Your task to perform on an android device: Is it going to rain tomorrow? Image 0: 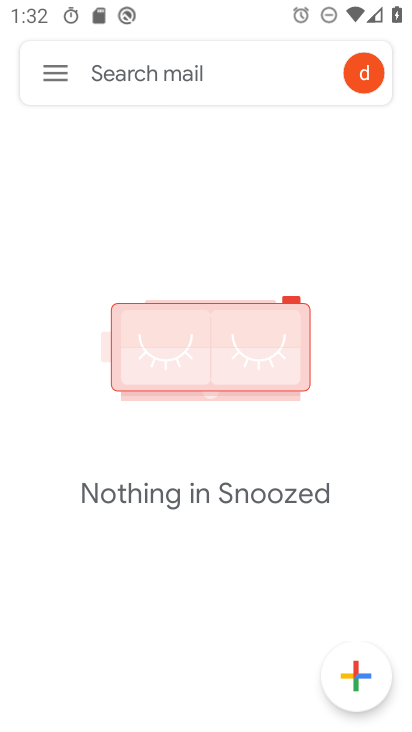
Step 0: press home button
Your task to perform on an android device: Is it going to rain tomorrow? Image 1: 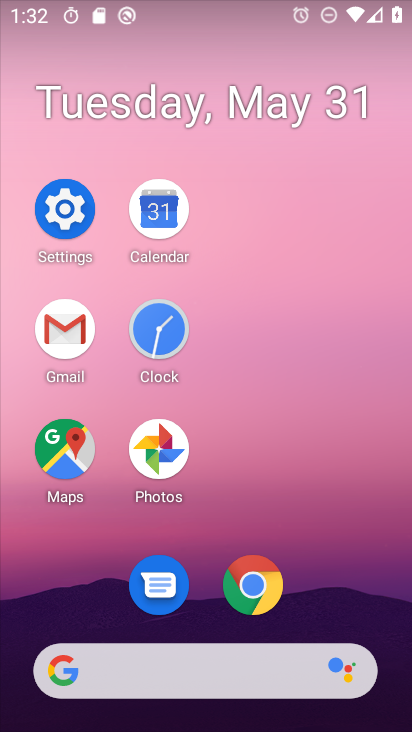
Step 1: drag from (298, 501) to (250, 123)
Your task to perform on an android device: Is it going to rain tomorrow? Image 2: 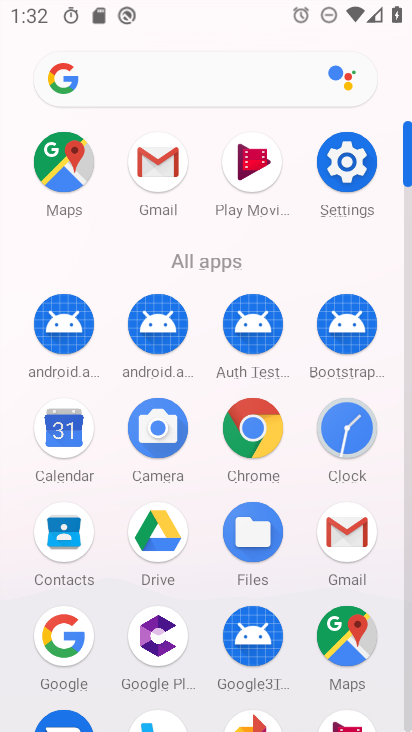
Step 2: drag from (39, 631) to (234, 385)
Your task to perform on an android device: Is it going to rain tomorrow? Image 3: 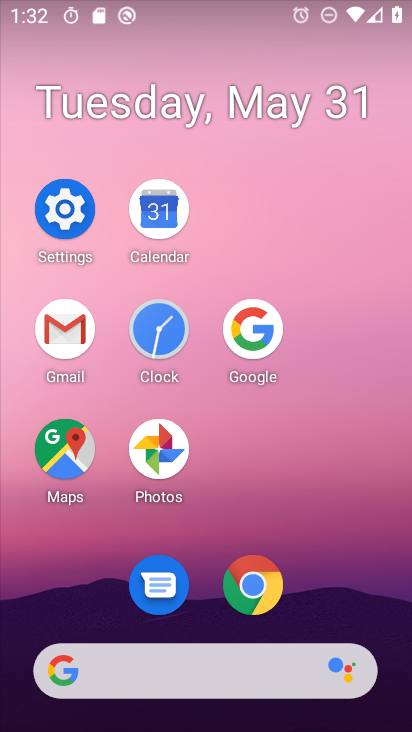
Step 3: drag from (260, 330) to (240, 436)
Your task to perform on an android device: Is it going to rain tomorrow? Image 4: 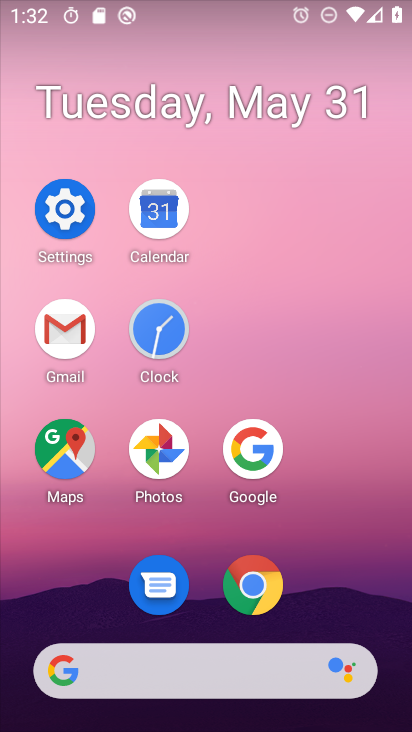
Step 4: click (240, 435)
Your task to perform on an android device: Is it going to rain tomorrow? Image 5: 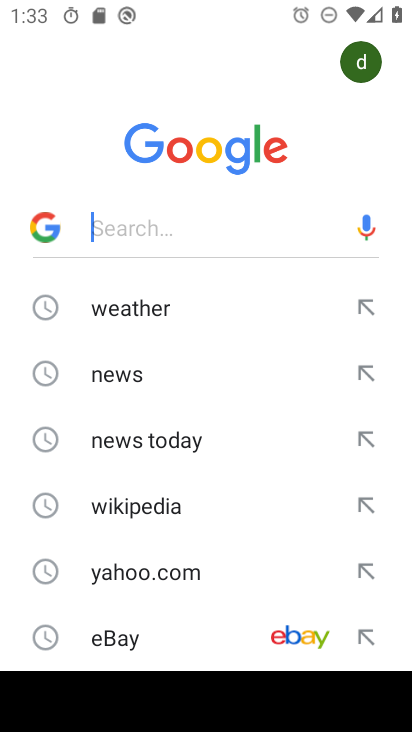
Step 5: click (186, 280)
Your task to perform on an android device: Is it going to rain tomorrow? Image 6: 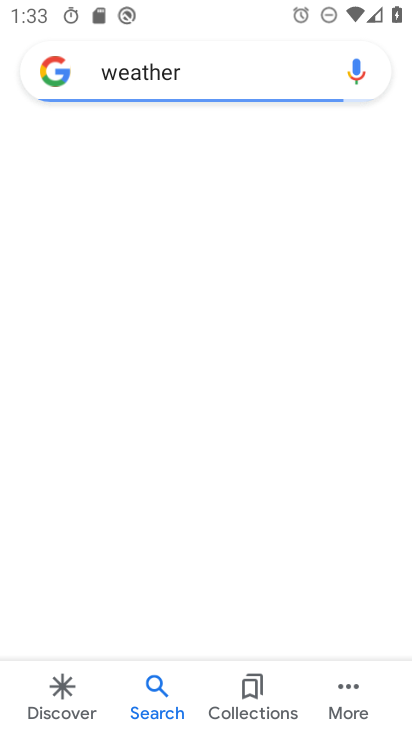
Step 6: task complete